Your task to perform on an android device: Open calendar and show me the third week of next month Image 0: 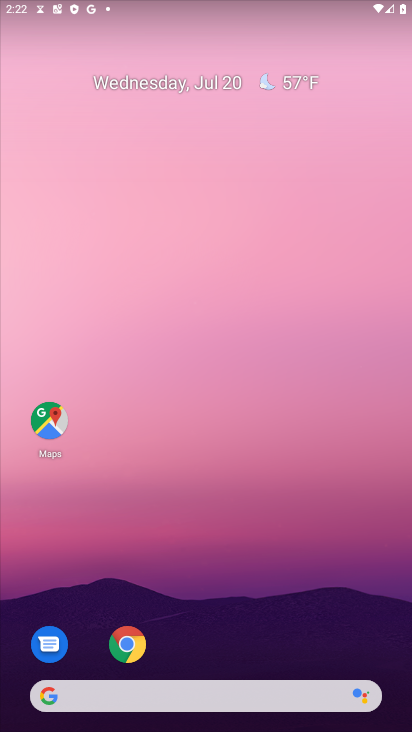
Step 0: press home button
Your task to perform on an android device: Open calendar and show me the third week of next month Image 1: 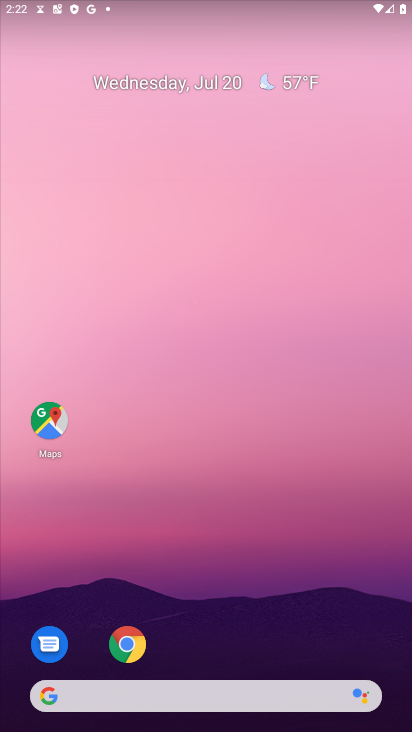
Step 1: drag from (248, 596) to (304, 74)
Your task to perform on an android device: Open calendar and show me the third week of next month Image 2: 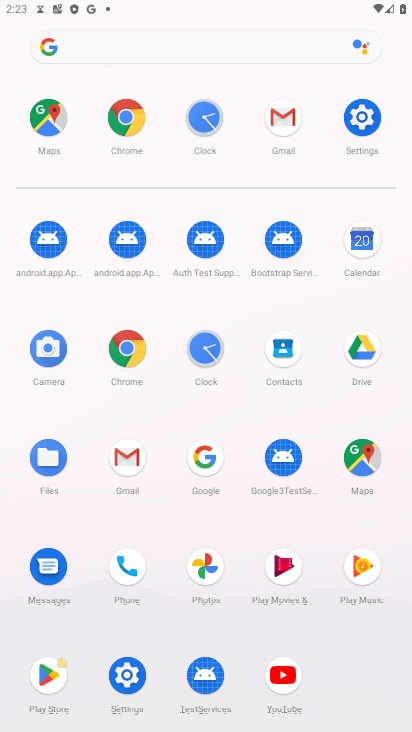
Step 2: click (350, 244)
Your task to perform on an android device: Open calendar and show me the third week of next month Image 3: 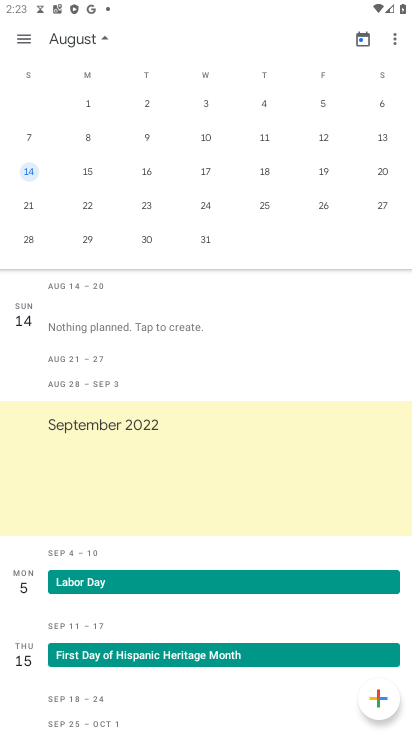
Step 3: click (86, 170)
Your task to perform on an android device: Open calendar and show me the third week of next month Image 4: 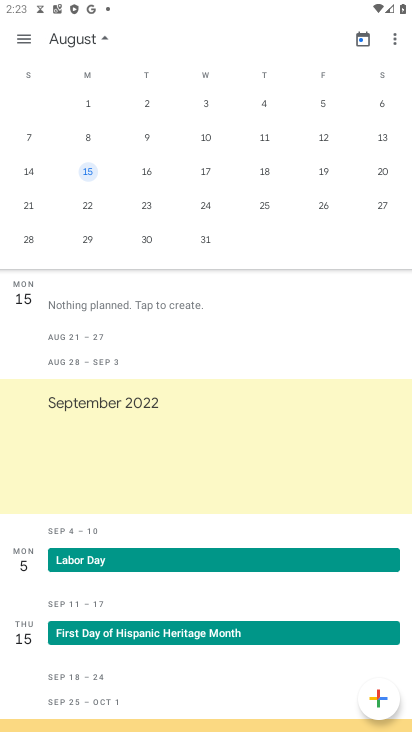
Step 4: click (149, 177)
Your task to perform on an android device: Open calendar and show me the third week of next month Image 5: 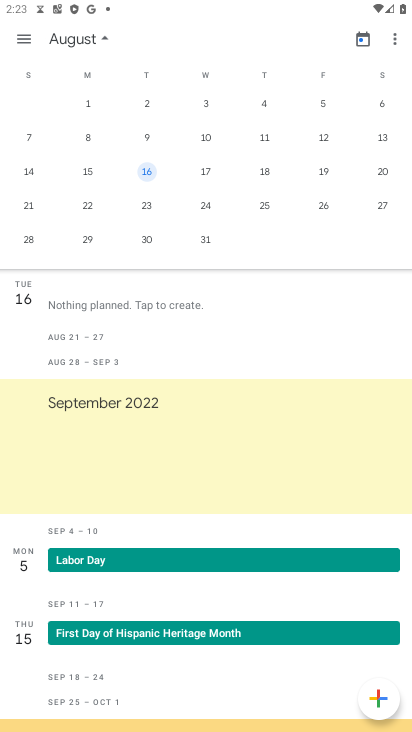
Step 5: click (202, 173)
Your task to perform on an android device: Open calendar and show me the third week of next month Image 6: 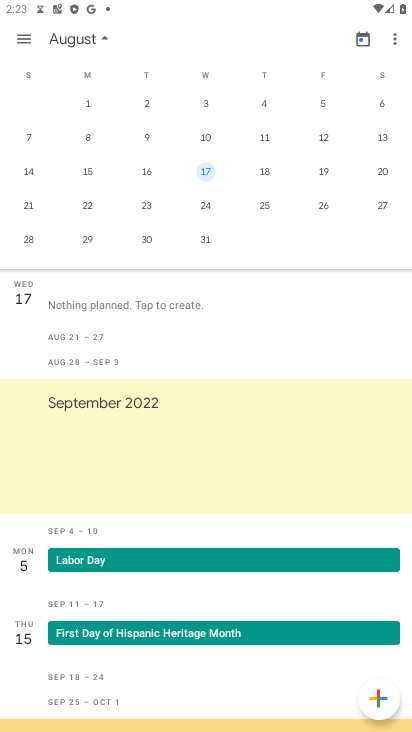
Step 6: click (263, 168)
Your task to perform on an android device: Open calendar and show me the third week of next month Image 7: 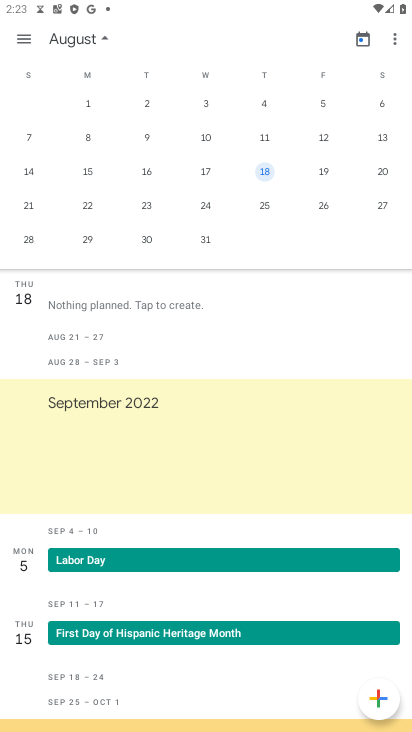
Step 7: click (328, 173)
Your task to perform on an android device: Open calendar and show me the third week of next month Image 8: 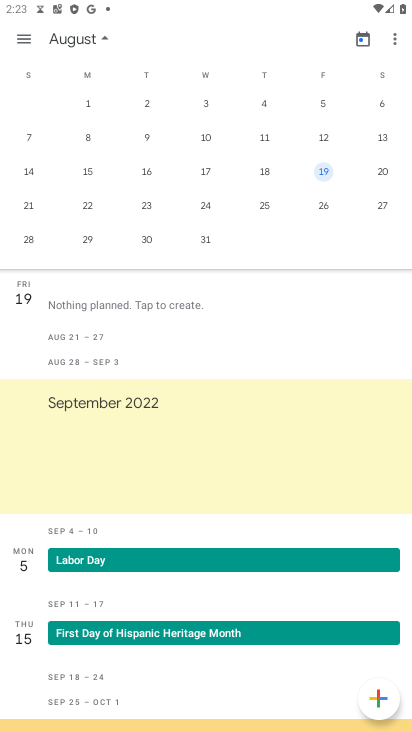
Step 8: click (385, 178)
Your task to perform on an android device: Open calendar and show me the third week of next month Image 9: 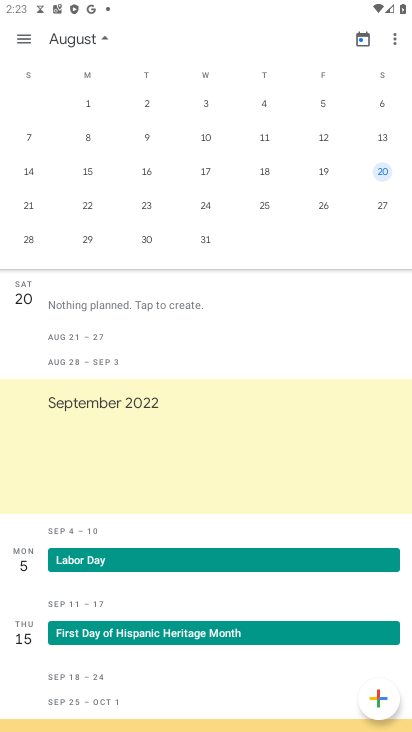
Step 9: click (24, 206)
Your task to perform on an android device: Open calendar and show me the third week of next month Image 10: 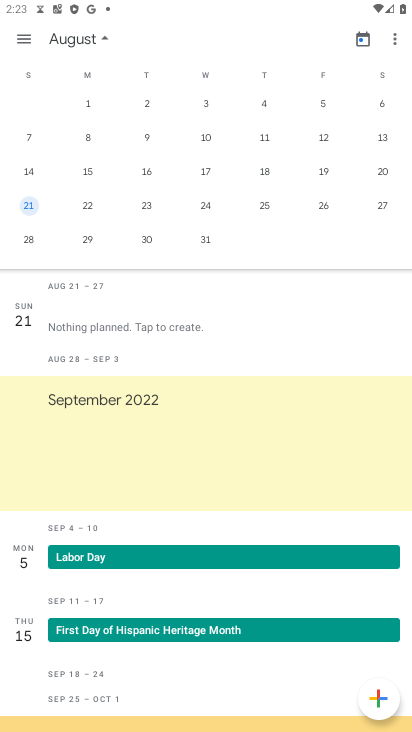
Step 10: task complete